Your task to perform on an android device: toggle show notifications on the lock screen Image 0: 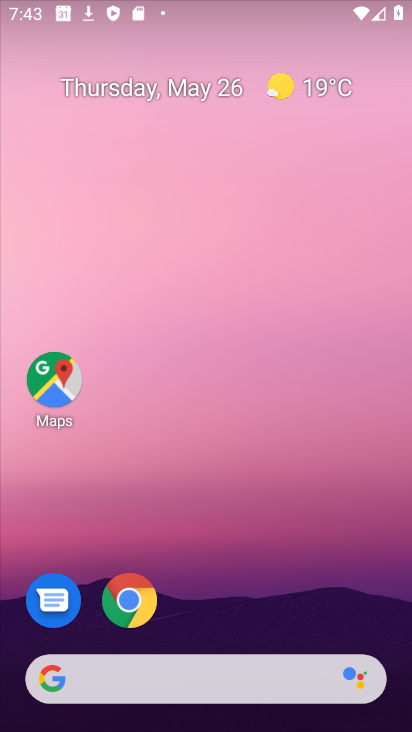
Step 0: click (339, 452)
Your task to perform on an android device: toggle show notifications on the lock screen Image 1: 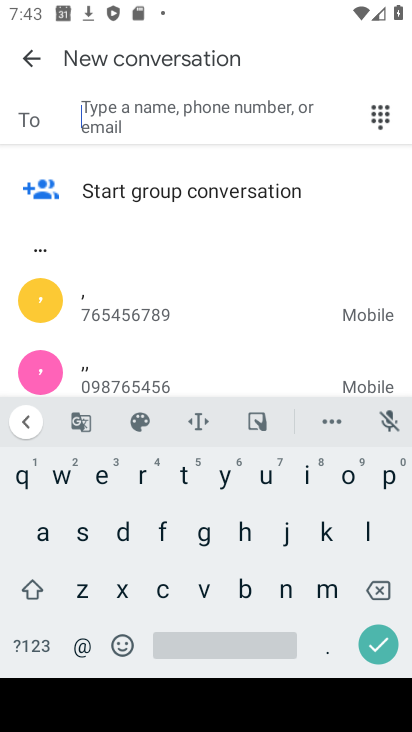
Step 1: press home button
Your task to perform on an android device: toggle show notifications on the lock screen Image 2: 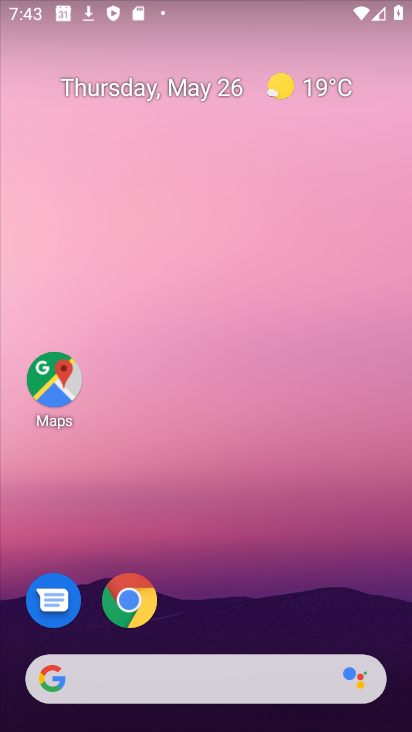
Step 2: drag from (245, 704) to (235, 109)
Your task to perform on an android device: toggle show notifications on the lock screen Image 3: 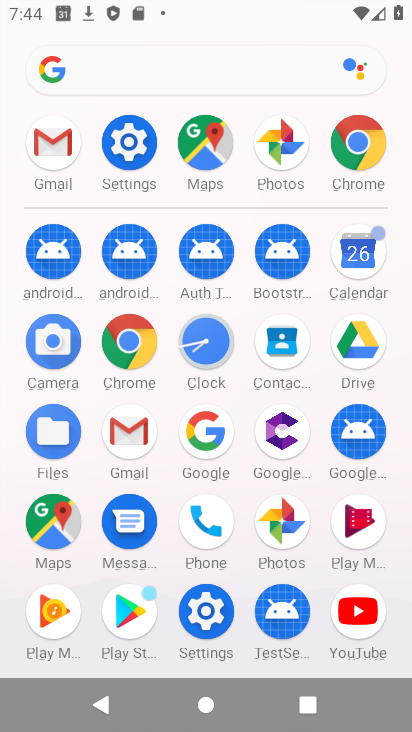
Step 3: click (120, 144)
Your task to perform on an android device: toggle show notifications on the lock screen Image 4: 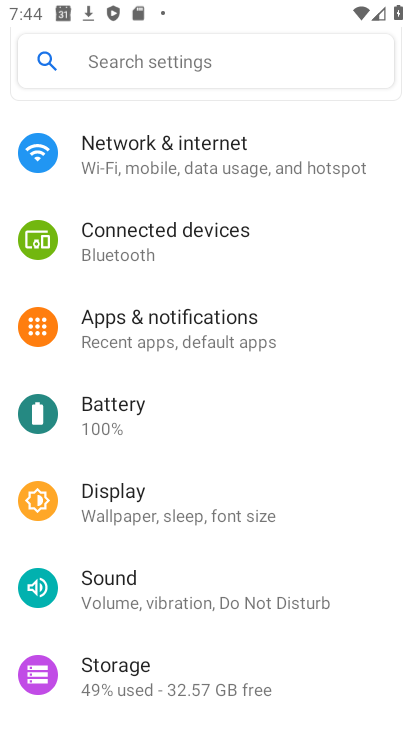
Step 4: click (145, 73)
Your task to perform on an android device: toggle show notifications on the lock screen Image 5: 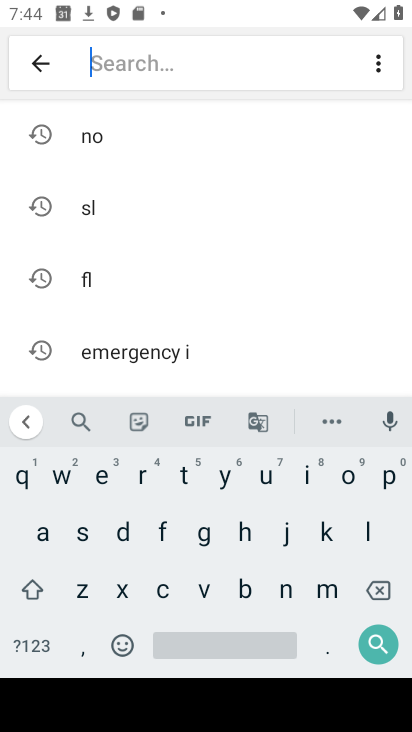
Step 5: click (283, 595)
Your task to perform on an android device: toggle show notifications on the lock screen Image 6: 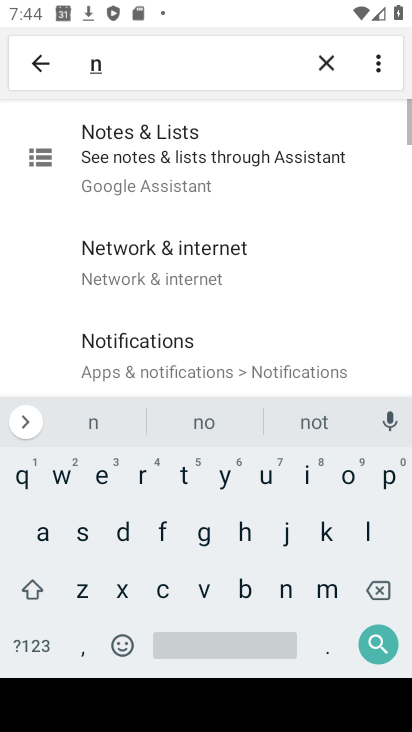
Step 6: click (339, 479)
Your task to perform on an android device: toggle show notifications on the lock screen Image 7: 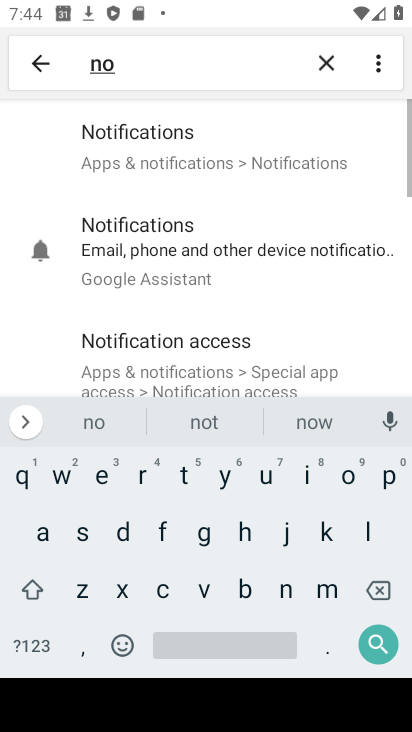
Step 7: click (181, 142)
Your task to perform on an android device: toggle show notifications on the lock screen Image 8: 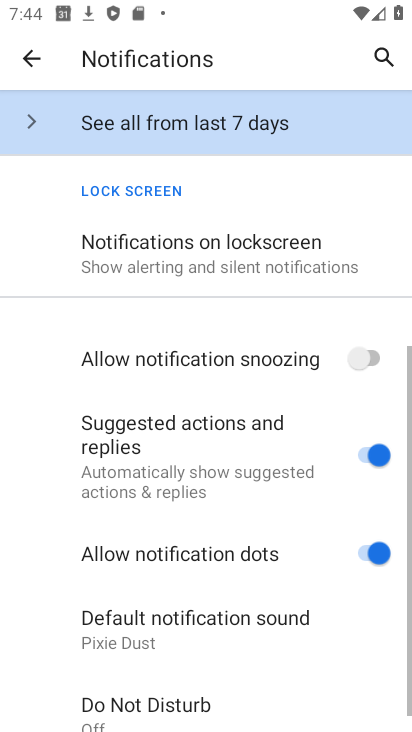
Step 8: click (146, 265)
Your task to perform on an android device: toggle show notifications on the lock screen Image 9: 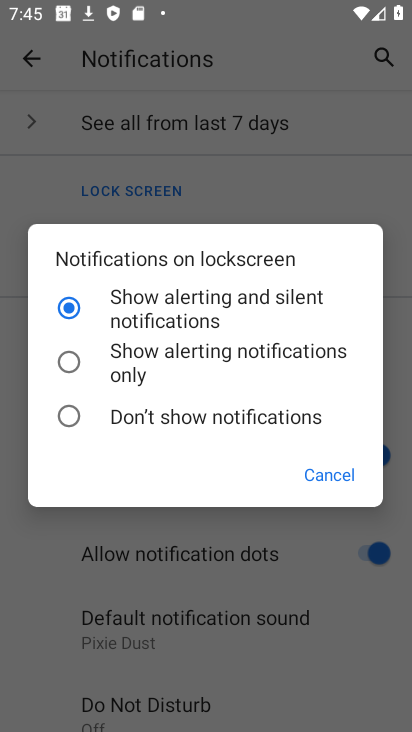
Step 9: task complete